Your task to perform on an android device: turn notification dots off Image 0: 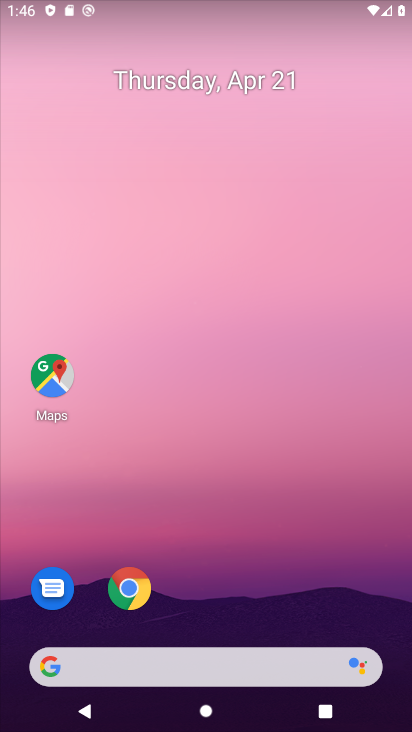
Step 0: drag from (292, 550) to (208, 11)
Your task to perform on an android device: turn notification dots off Image 1: 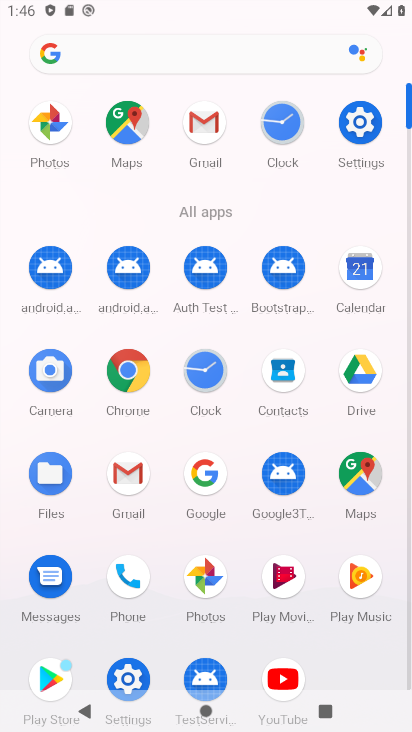
Step 1: click (369, 123)
Your task to perform on an android device: turn notification dots off Image 2: 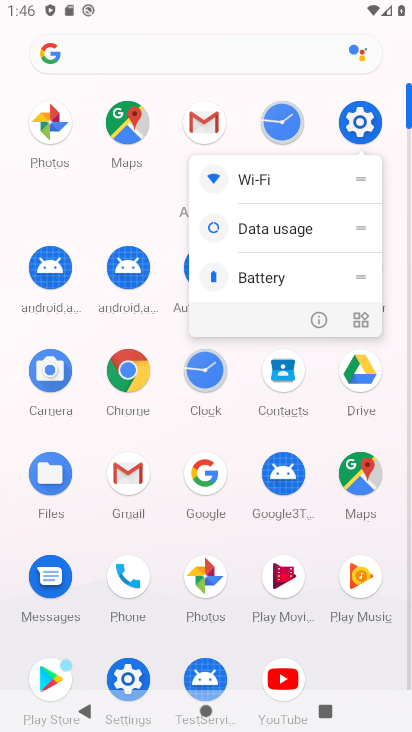
Step 2: click (361, 124)
Your task to perform on an android device: turn notification dots off Image 3: 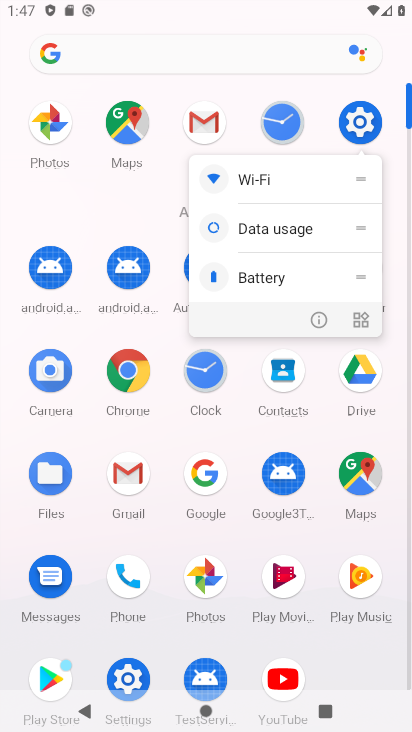
Step 3: click (362, 125)
Your task to perform on an android device: turn notification dots off Image 4: 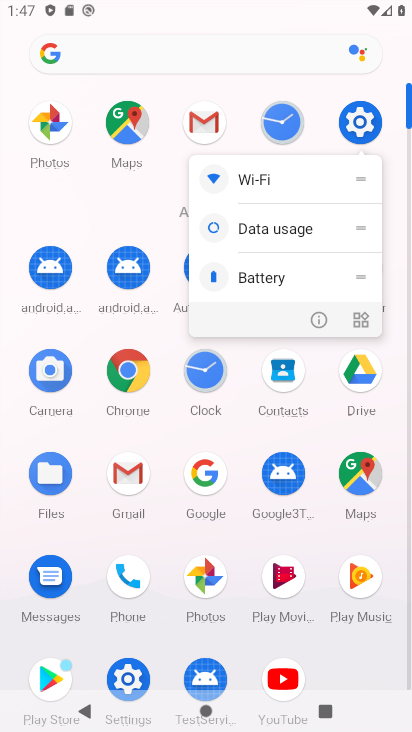
Step 4: click (362, 125)
Your task to perform on an android device: turn notification dots off Image 5: 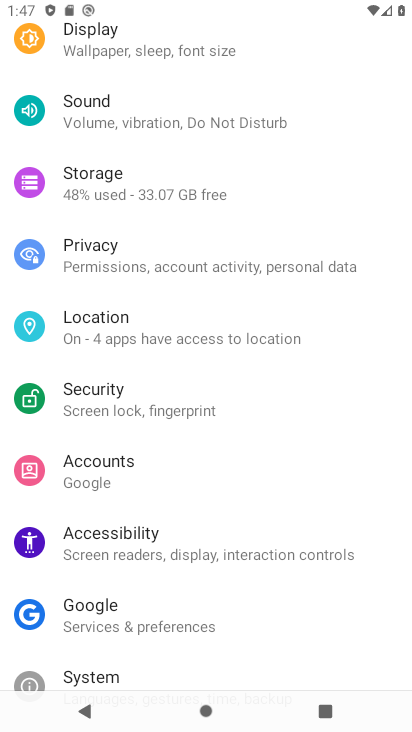
Step 5: drag from (227, 128) to (238, 219)
Your task to perform on an android device: turn notification dots off Image 6: 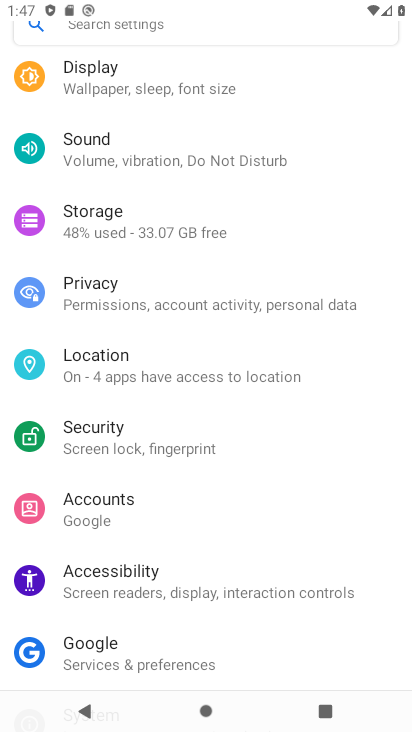
Step 6: drag from (181, 70) to (196, 163)
Your task to perform on an android device: turn notification dots off Image 7: 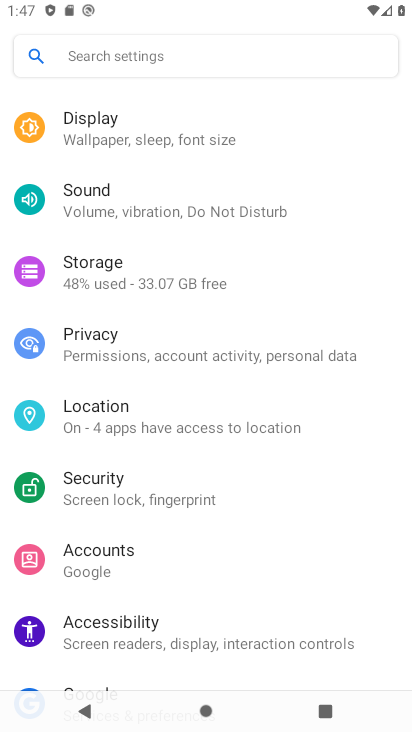
Step 7: drag from (89, 143) to (136, 278)
Your task to perform on an android device: turn notification dots off Image 8: 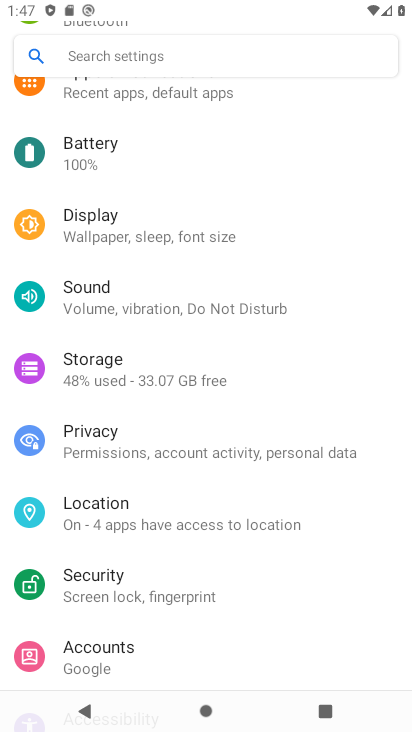
Step 8: drag from (124, 252) to (124, 321)
Your task to perform on an android device: turn notification dots off Image 9: 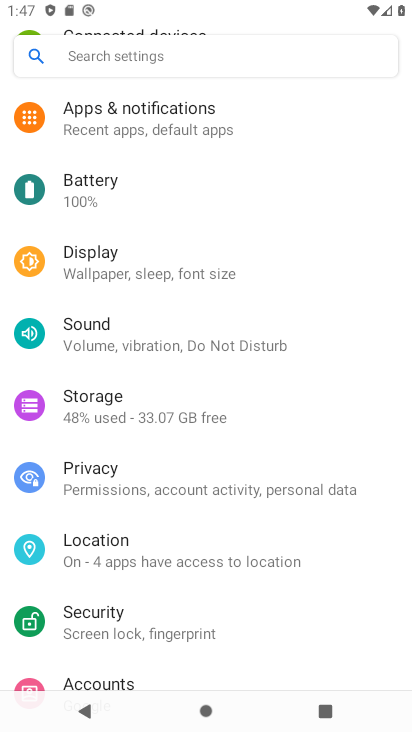
Step 9: drag from (114, 216) to (110, 353)
Your task to perform on an android device: turn notification dots off Image 10: 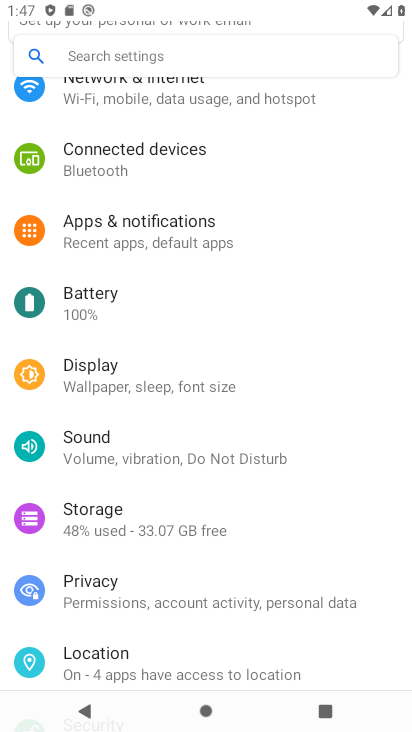
Step 10: click (148, 239)
Your task to perform on an android device: turn notification dots off Image 11: 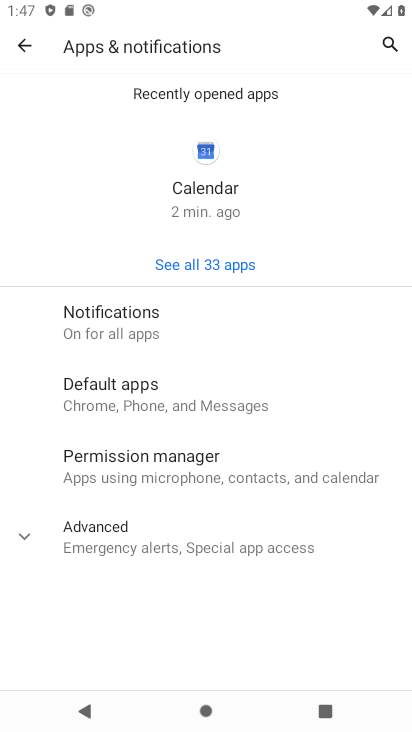
Step 11: click (168, 331)
Your task to perform on an android device: turn notification dots off Image 12: 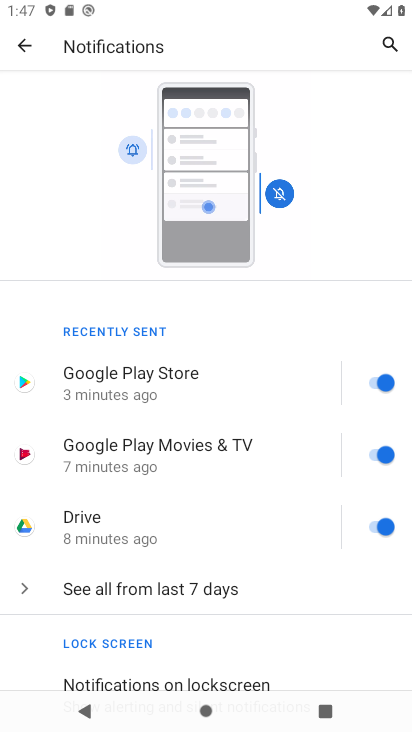
Step 12: drag from (152, 600) to (175, 371)
Your task to perform on an android device: turn notification dots off Image 13: 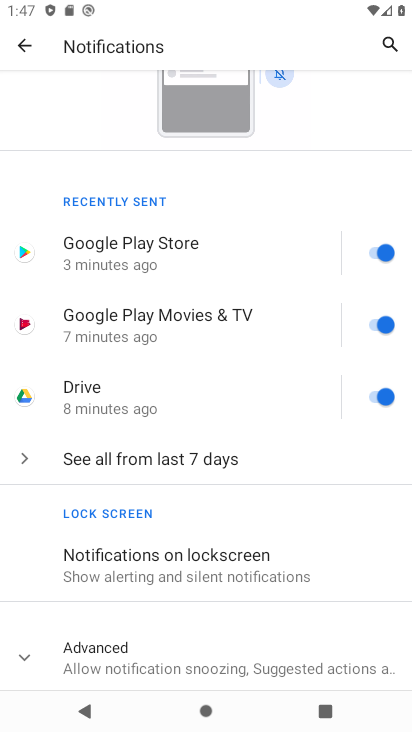
Step 13: drag from (186, 611) to (194, 383)
Your task to perform on an android device: turn notification dots off Image 14: 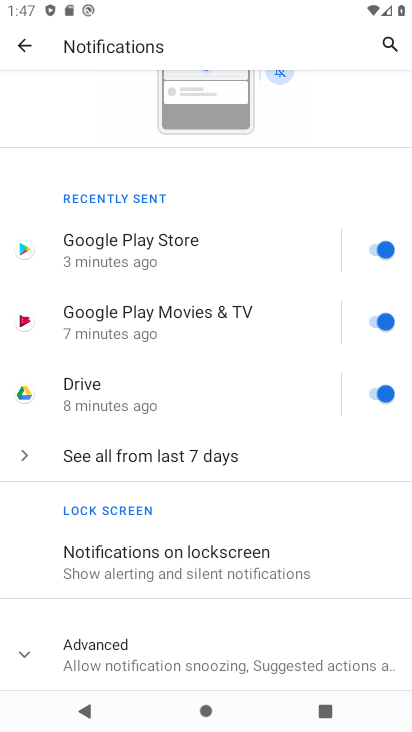
Step 14: click (137, 660)
Your task to perform on an android device: turn notification dots off Image 15: 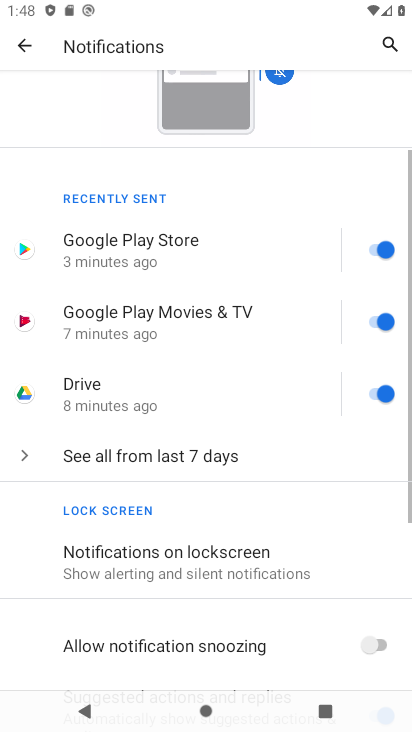
Step 15: drag from (163, 551) to (178, 353)
Your task to perform on an android device: turn notification dots off Image 16: 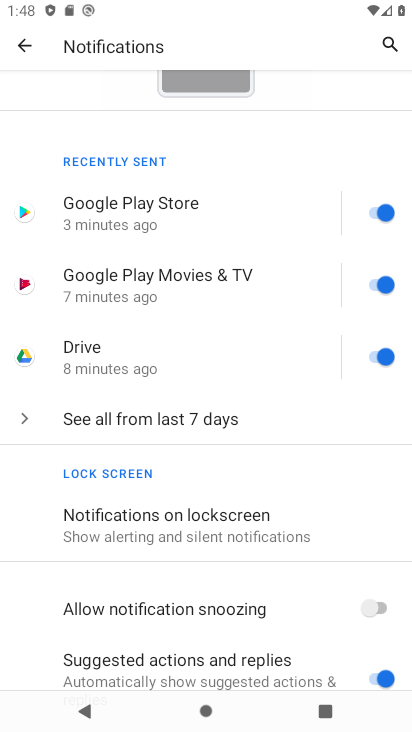
Step 16: drag from (185, 574) to (197, 399)
Your task to perform on an android device: turn notification dots off Image 17: 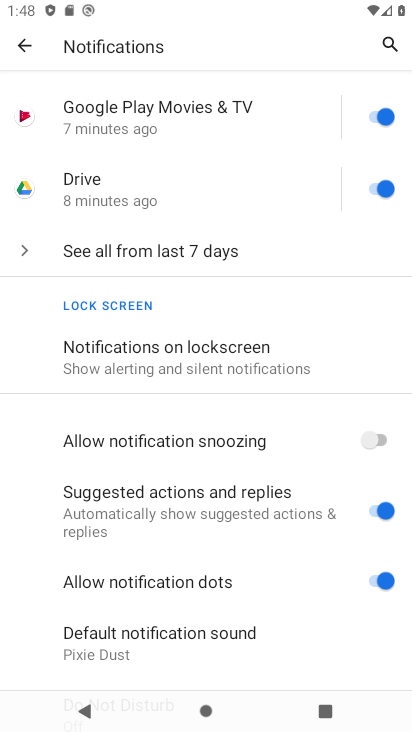
Step 17: click (374, 580)
Your task to perform on an android device: turn notification dots off Image 18: 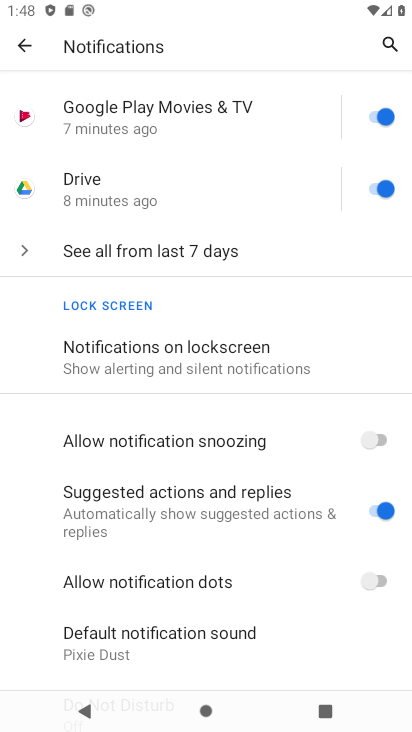
Step 18: task complete